Your task to perform on an android device: Do I have any events this weekend? Image 0: 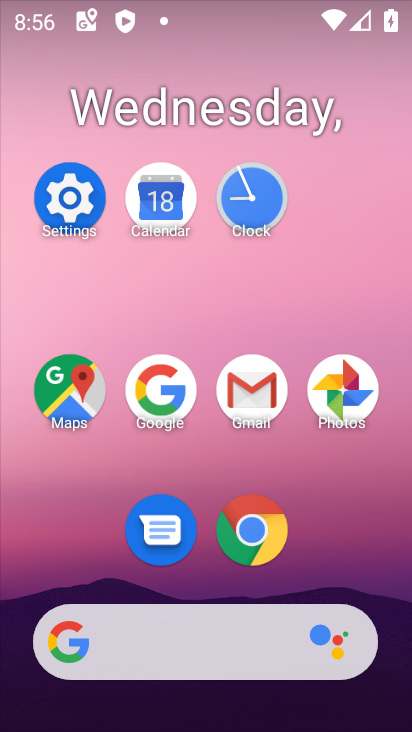
Step 0: press home button
Your task to perform on an android device: Do I have any events this weekend? Image 1: 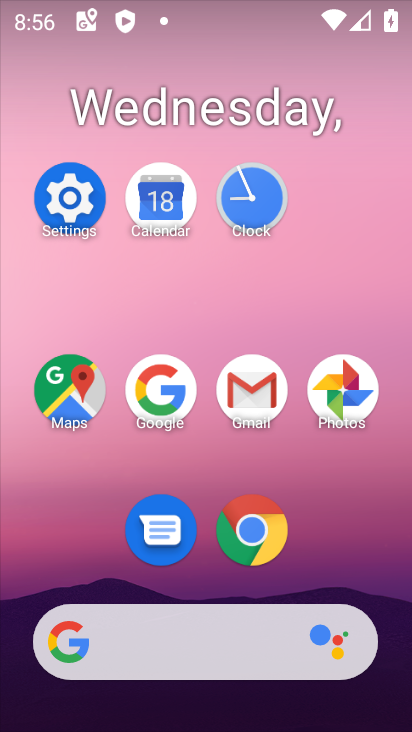
Step 1: click (184, 212)
Your task to perform on an android device: Do I have any events this weekend? Image 2: 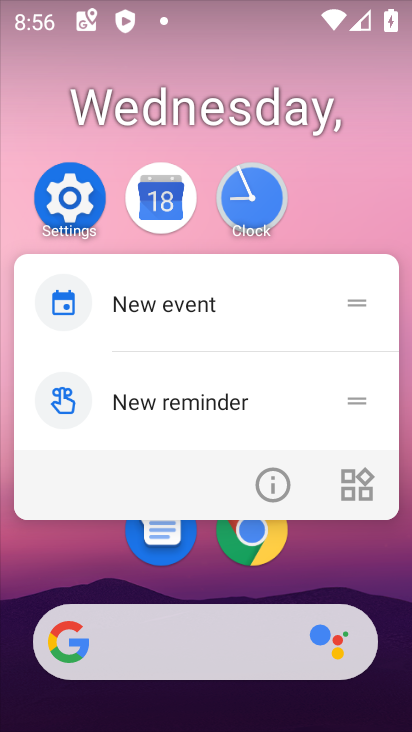
Step 2: click (184, 212)
Your task to perform on an android device: Do I have any events this weekend? Image 3: 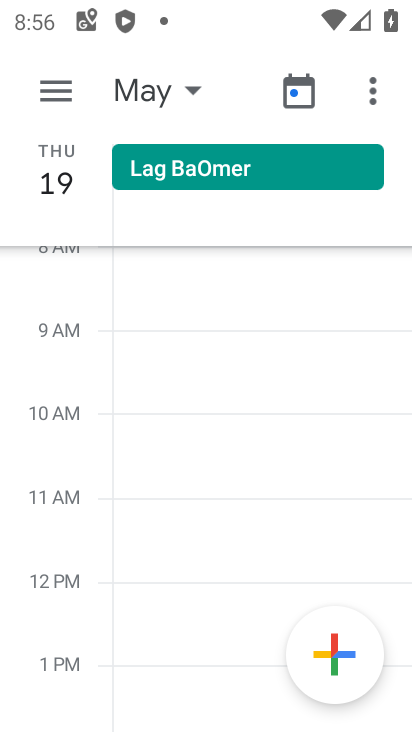
Step 3: click (56, 96)
Your task to perform on an android device: Do I have any events this weekend? Image 4: 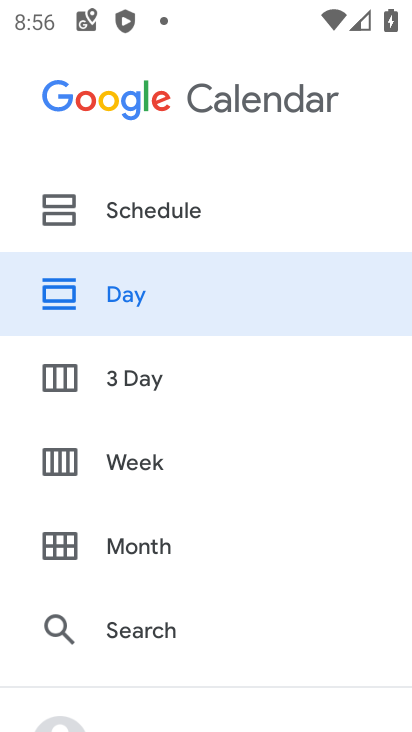
Step 4: click (207, 462)
Your task to perform on an android device: Do I have any events this weekend? Image 5: 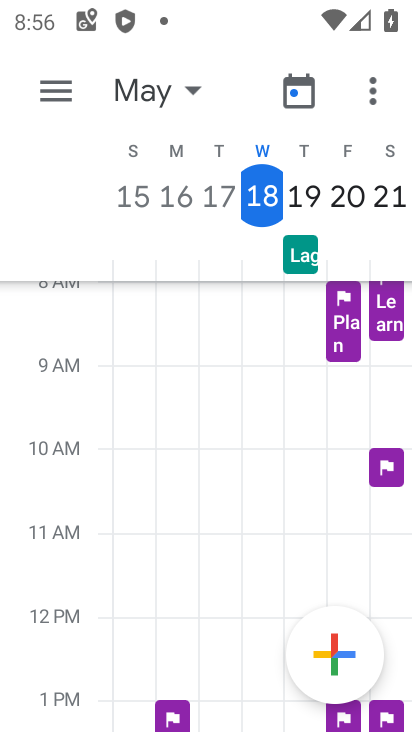
Step 5: task complete